Your task to perform on an android device: Open Chrome and go to the settings page Image 0: 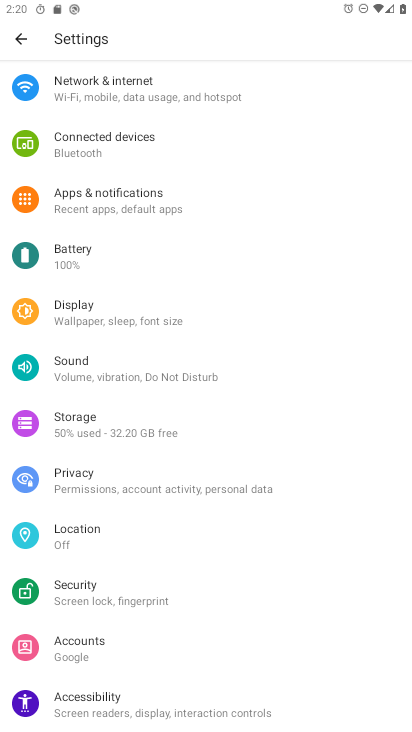
Step 0: drag from (130, 501) to (119, 5)
Your task to perform on an android device: Open Chrome and go to the settings page Image 1: 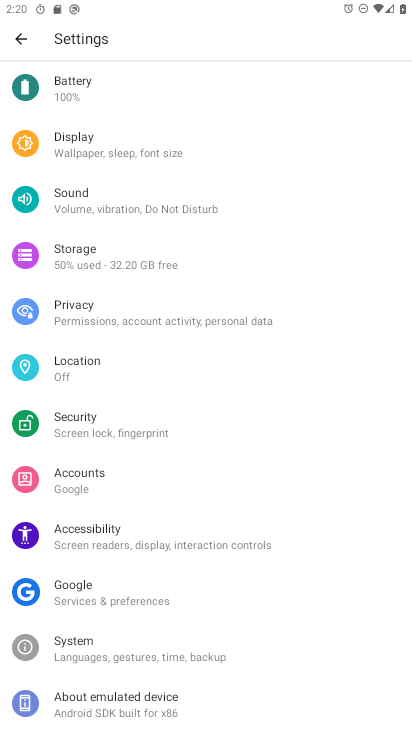
Step 1: press home button
Your task to perform on an android device: Open Chrome and go to the settings page Image 2: 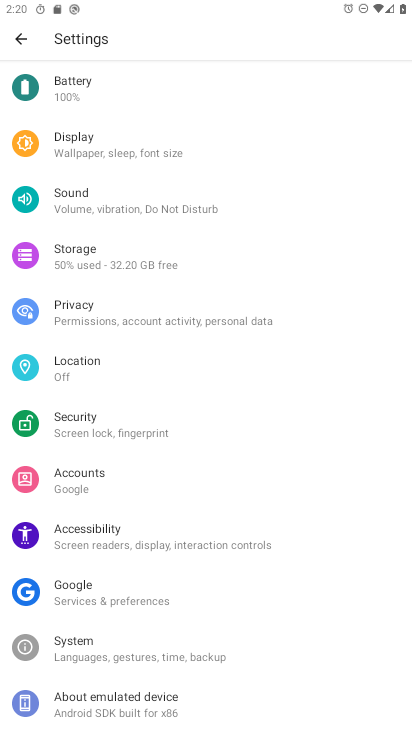
Step 2: press home button
Your task to perform on an android device: Open Chrome and go to the settings page Image 3: 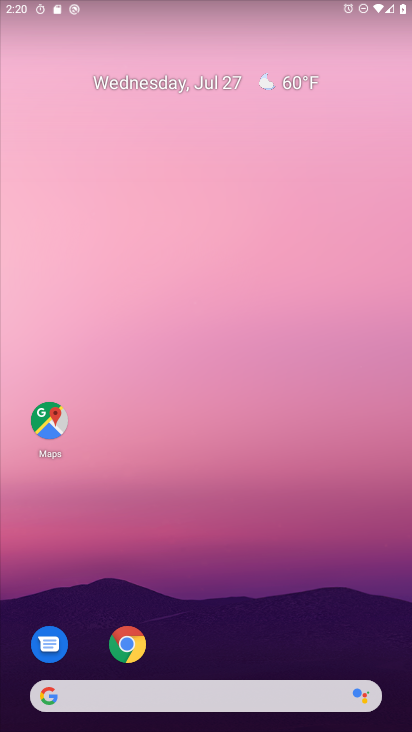
Step 3: drag from (290, 632) to (285, 516)
Your task to perform on an android device: Open Chrome and go to the settings page Image 4: 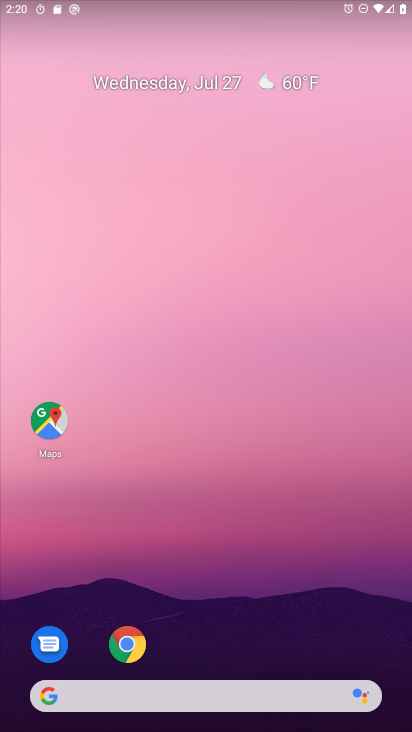
Step 4: click (133, 644)
Your task to perform on an android device: Open Chrome and go to the settings page Image 5: 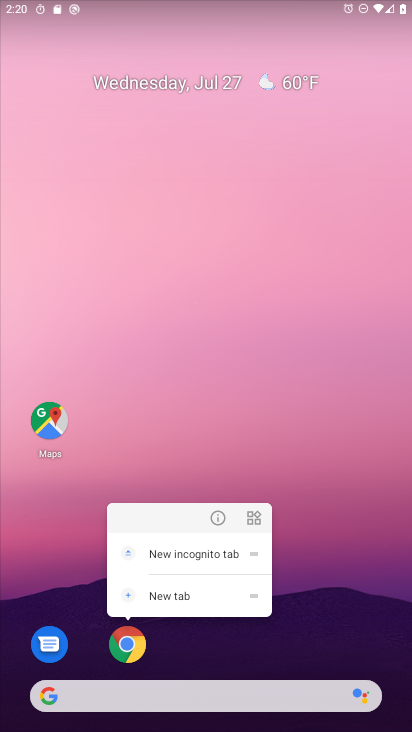
Step 5: click (213, 520)
Your task to perform on an android device: Open Chrome and go to the settings page Image 6: 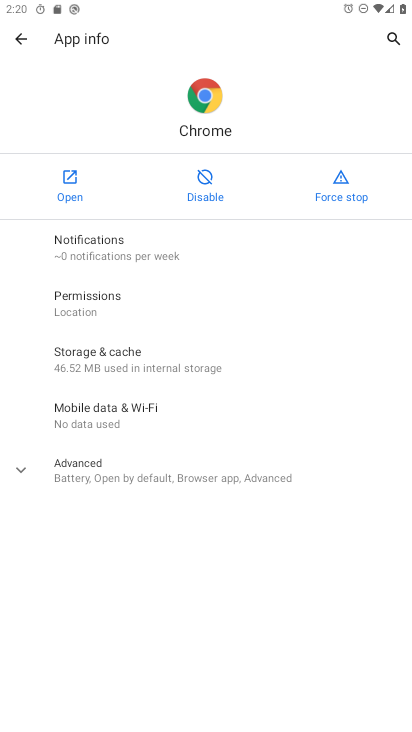
Step 6: click (56, 178)
Your task to perform on an android device: Open Chrome and go to the settings page Image 7: 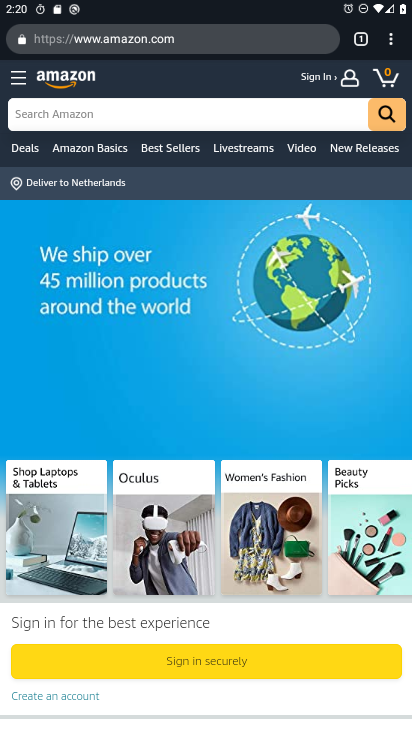
Step 7: task complete